Your task to perform on an android device: Go to Android settings Image 0: 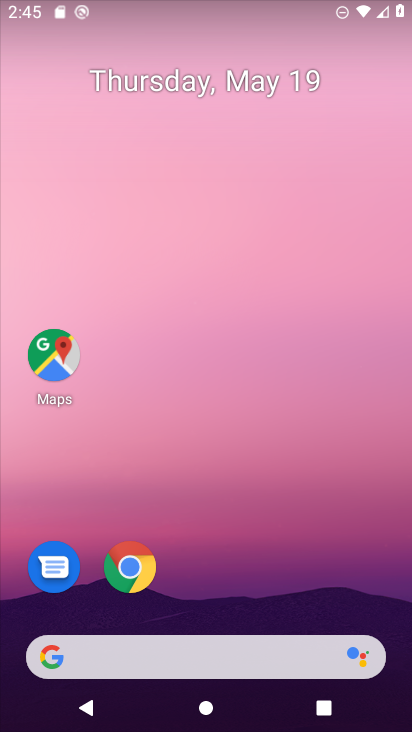
Step 0: drag from (232, 569) to (249, 92)
Your task to perform on an android device: Go to Android settings Image 1: 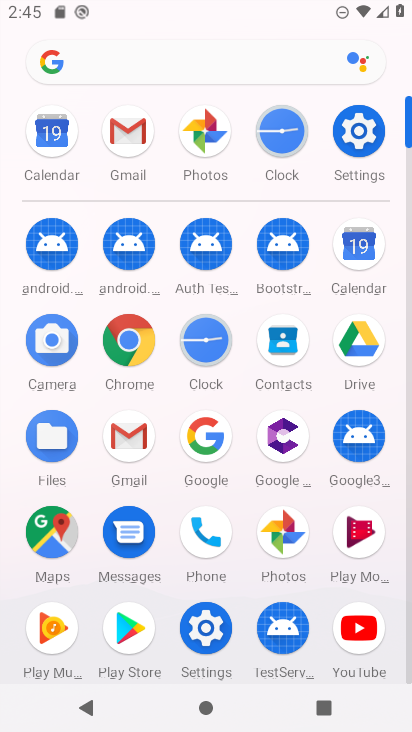
Step 1: click (354, 139)
Your task to perform on an android device: Go to Android settings Image 2: 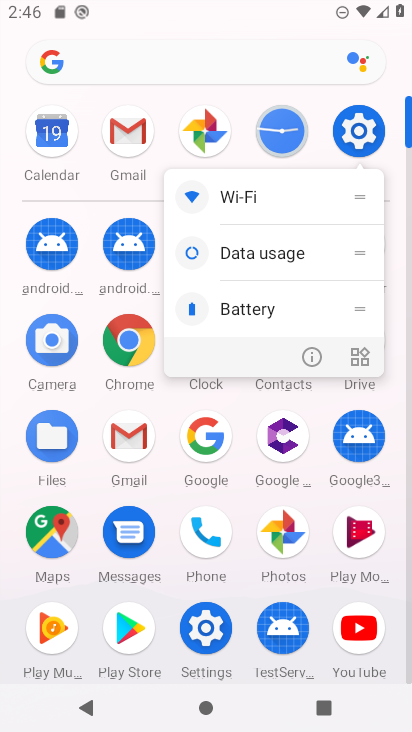
Step 2: click (354, 137)
Your task to perform on an android device: Go to Android settings Image 3: 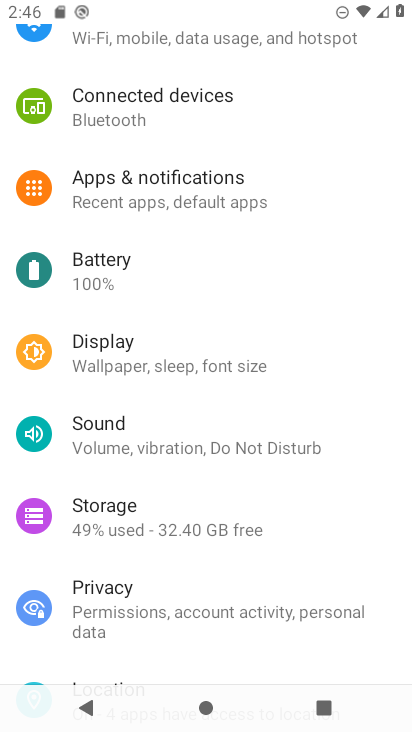
Step 3: drag from (223, 565) to (238, 123)
Your task to perform on an android device: Go to Android settings Image 4: 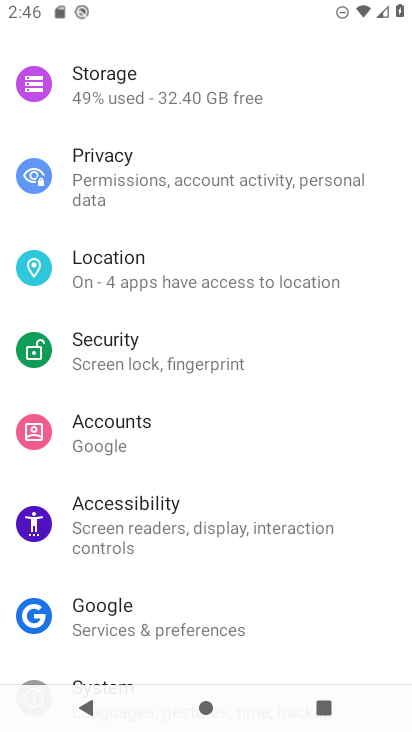
Step 4: drag from (227, 494) to (231, 167)
Your task to perform on an android device: Go to Android settings Image 5: 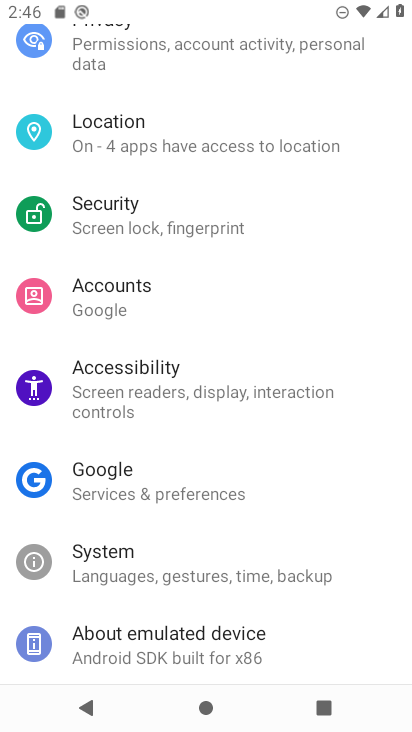
Step 5: click (209, 643)
Your task to perform on an android device: Go to Android settings Image 6: 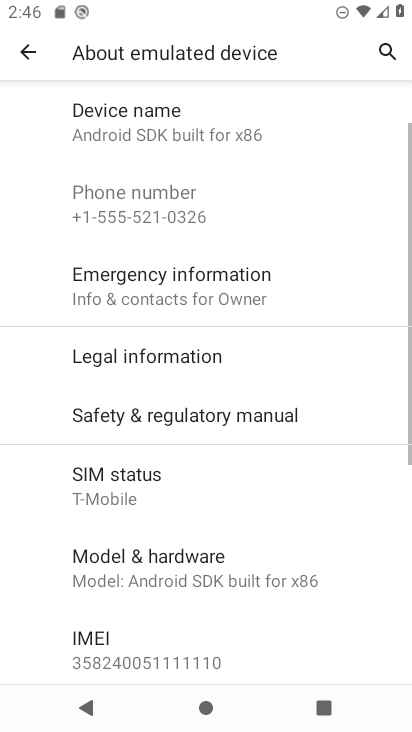
Step 6: task complete